Your task to perform on an android device: turn off location Image 0: 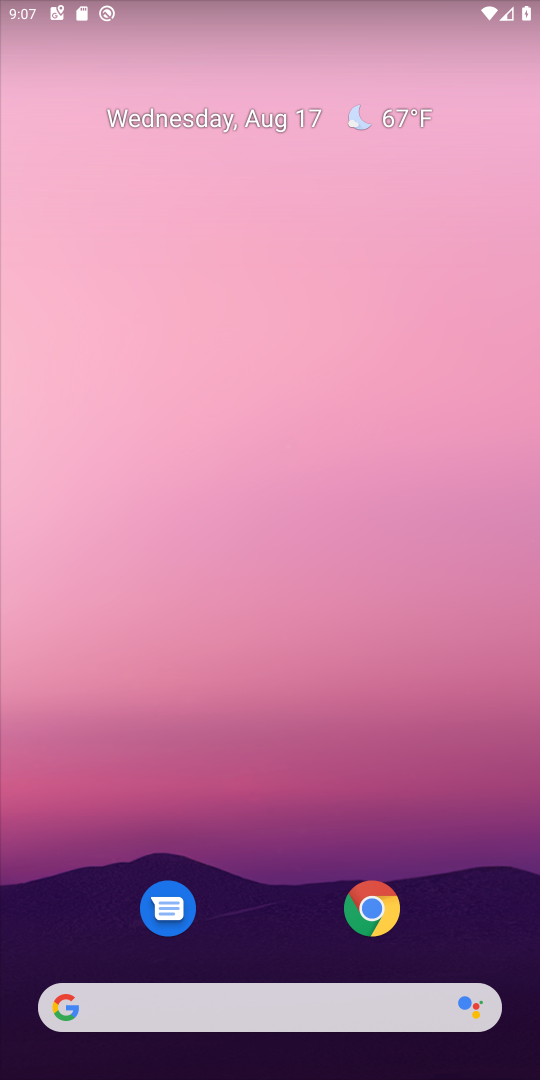
Step 0: drag from (275, 951) to (253, 110)
Your task to perform on an android device: turn off location Image 1: 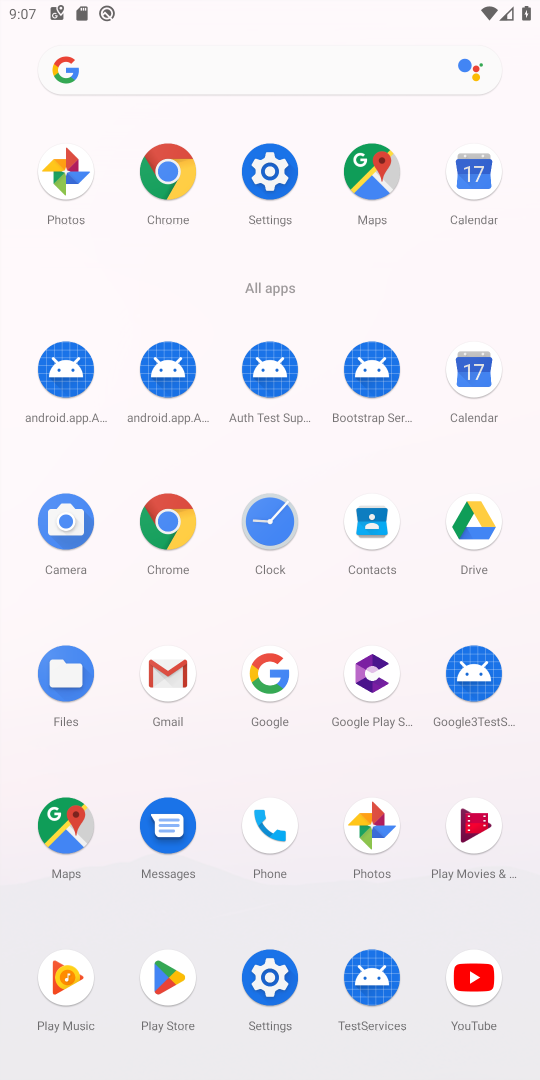
Step 1: click (262, 976)
Your task to perform on an android device: turn off location Image 2: 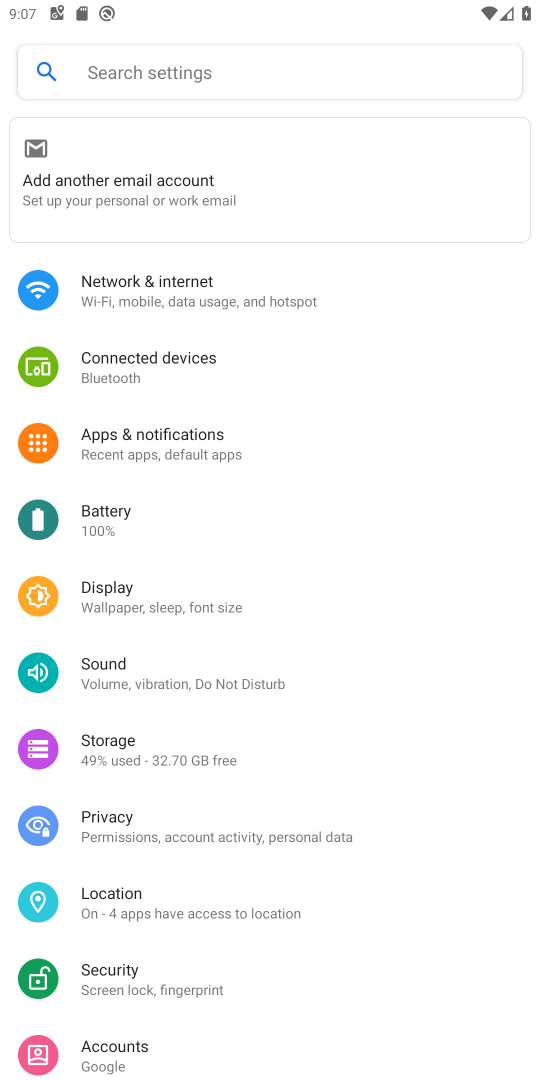
Step 2: click (81, 902)
Your task to perform on an android device: turn off location Image 3: 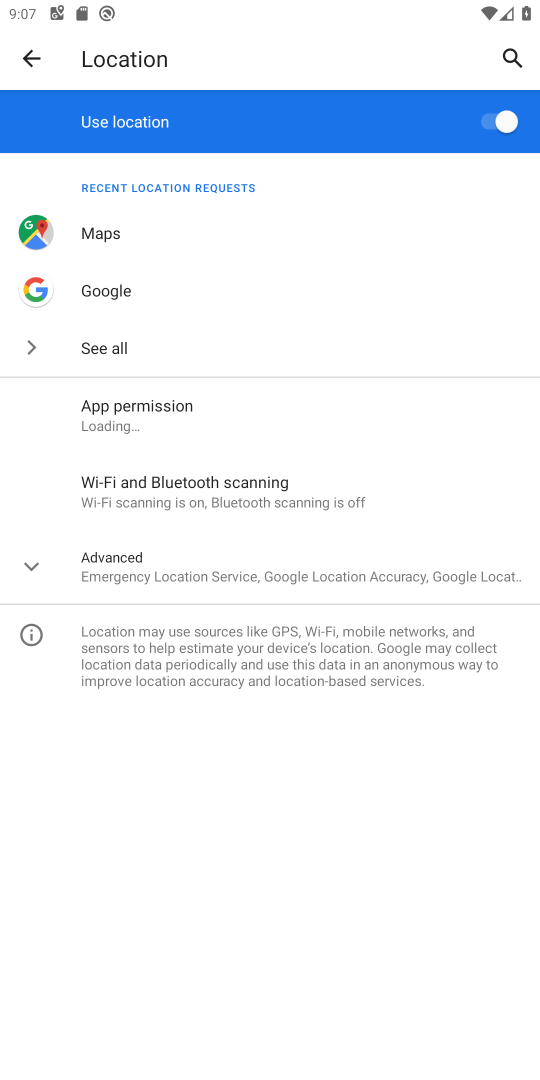
Step 3: click (478, 122)
Your task to perform on an android device: turn off location Image 4: 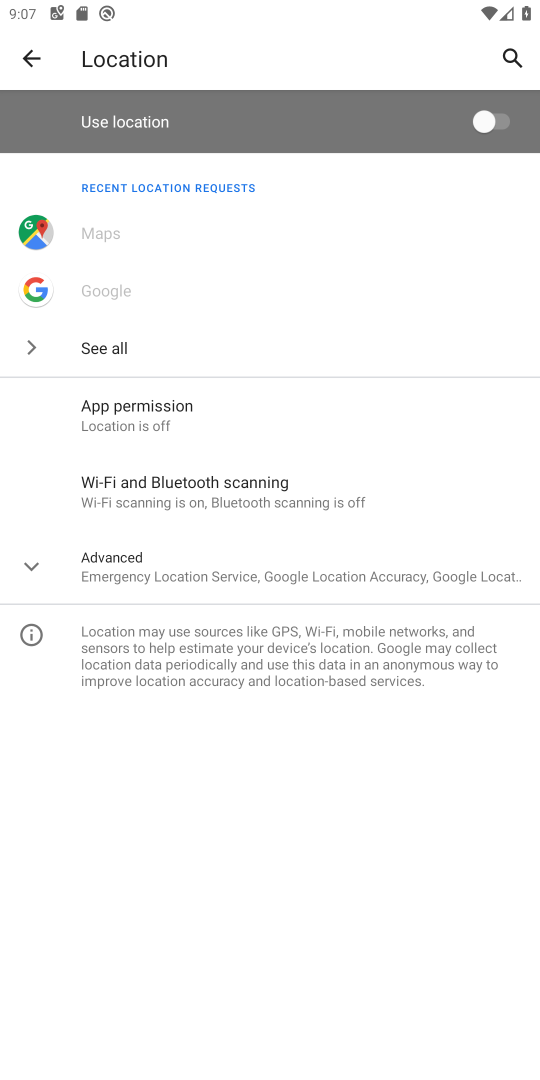
Step 4: task complete